Your task to perform on an android device: Play the last video I watched on Youtube Image 0: 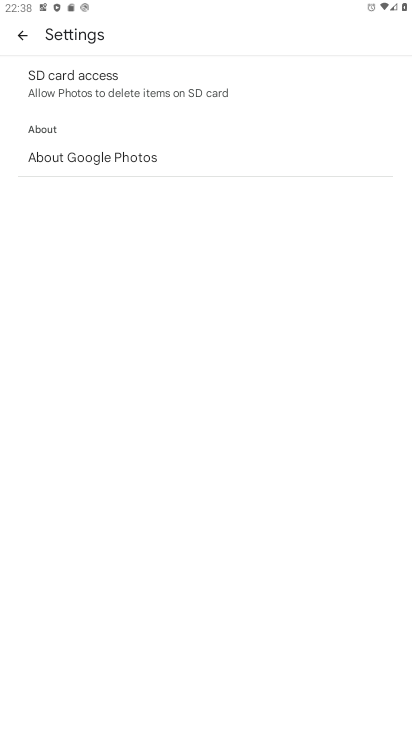
Step 0: drag from (230, 556) to (248, 422)
Your task to perform on an android device: Play the last video I watched on Youtube Image 1: 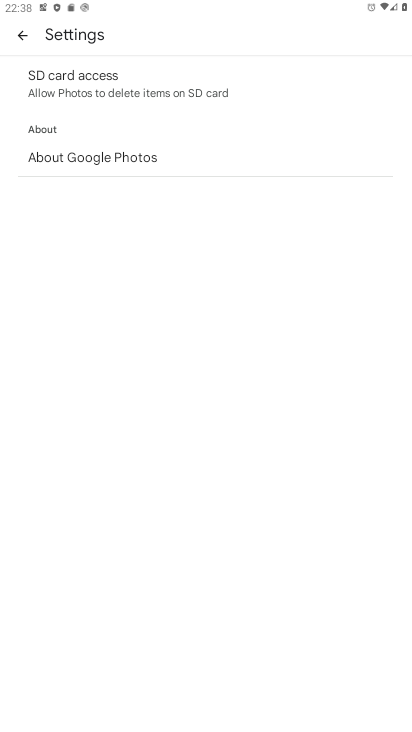
Step 1: press home button
Your task to perform on an android device: Play the last video I watched on Youtube Image 2: 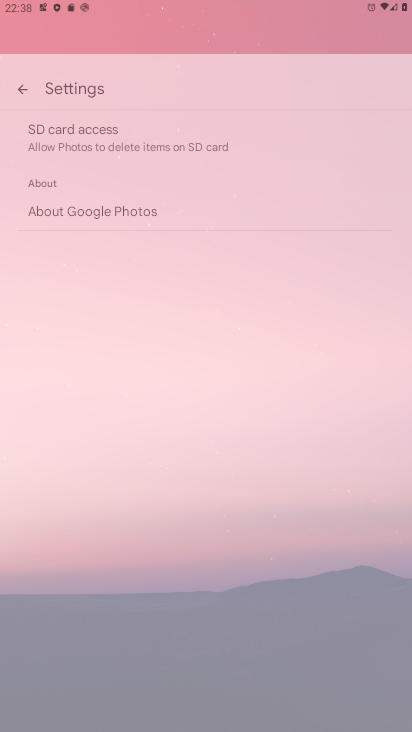
Step 2: drag from (178, 537) to (199, 247)
Your task to perform on an android device: Play the last video I watched on Youtube Image 3: 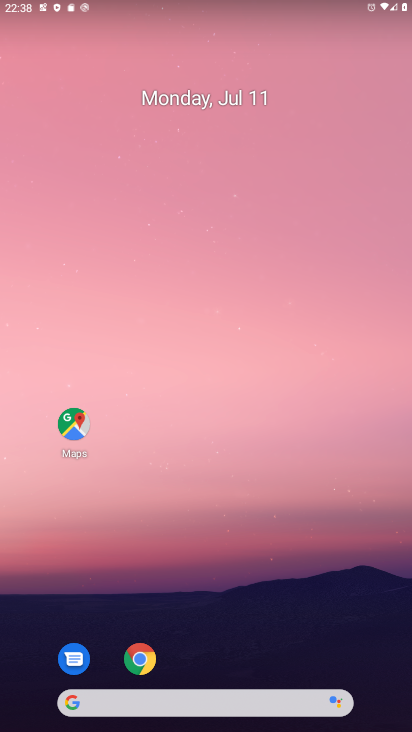
Step 3: drag from (210, 630) to (216, 0)
Your task to perform on an android device: Play the last video I watched on Youtube Image 4: 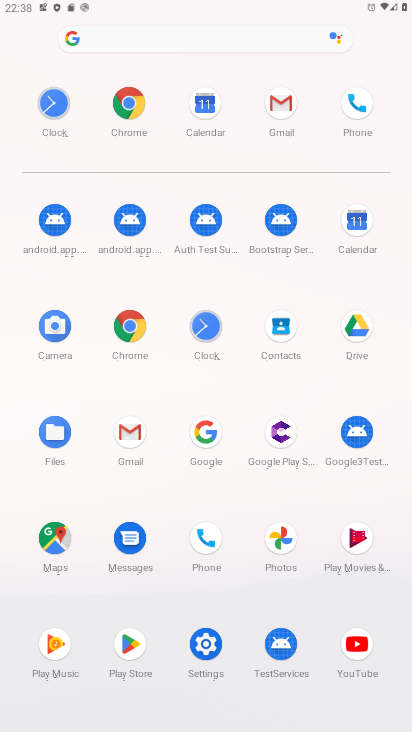
Step 4: click (352, 647)
Your task to perform on an android device: Play the last video I watched on Youtube Image 5: 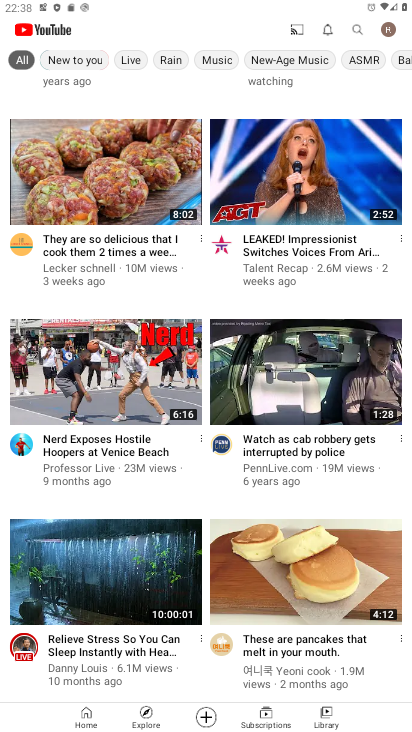
Step 5: drag from (196, 662) to (216, 124)
Your task to perform on an android device: Play the last video I watched on Youtube Image 6: 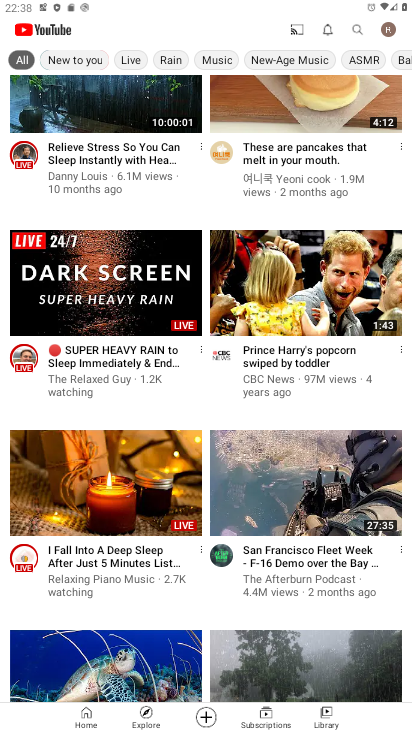
Step 6: drag from (209, 148) to (215, 729)
Your task to perform on an android device: Play the last video I watched on Youtube Image 7: 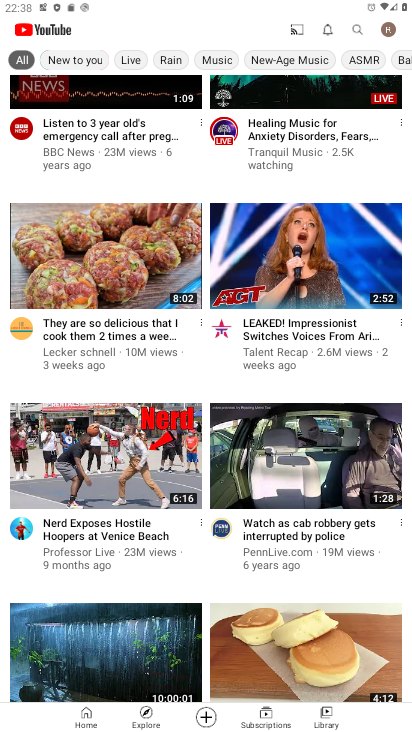
Step 7: drag from (212, 159) to (321, 685)
Your task to perform on an android device: Play the last video I watched on Youtube Image 8: 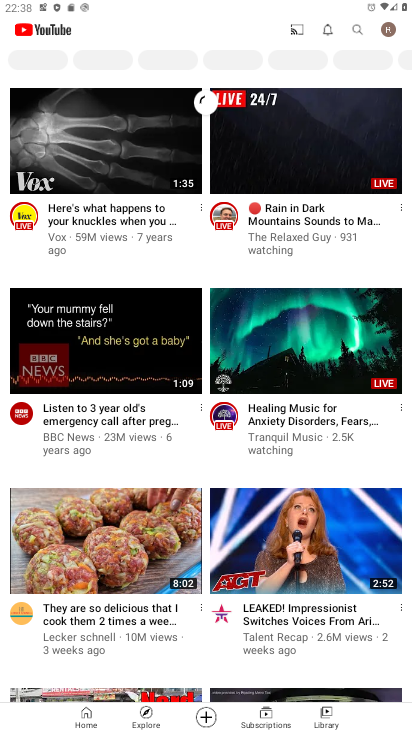
Step 8: click (323, 715)
Your task to perform on an android device: Play the last video I watched on Youtube Image 9: 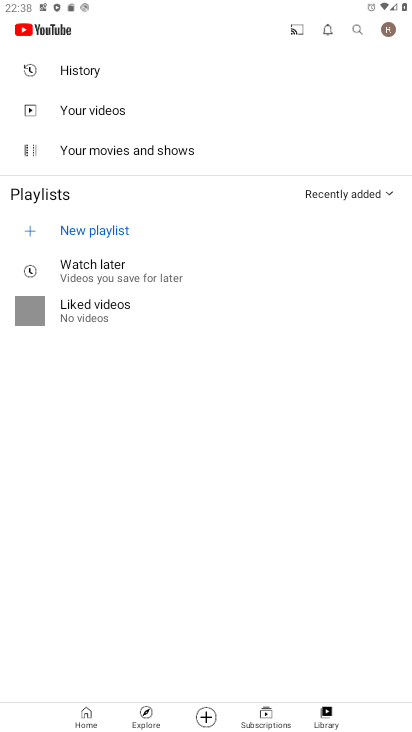
Step 9: drag from (49, 663) to (211, 282)
Your task to perform on an android device: Play the last video I watched on Youtube Image 10: 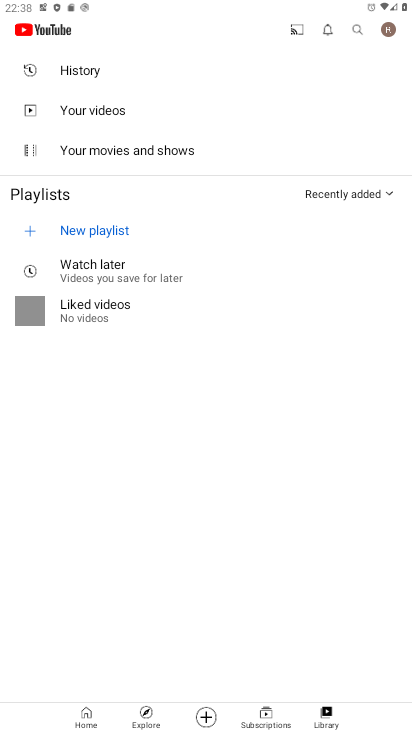
Step 10: drag from (150, 531) to (244, 39)
Your task to perform on an android device: Play the last video I watched on Youtube Image 11: 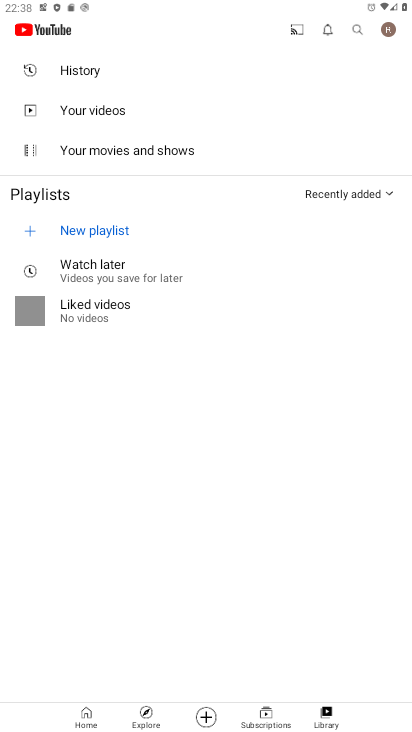
Step 11: drag from (234, 483) to (234, 297)
Your task to perform on an android device: Play the last video I watched on Youtube Image 12: 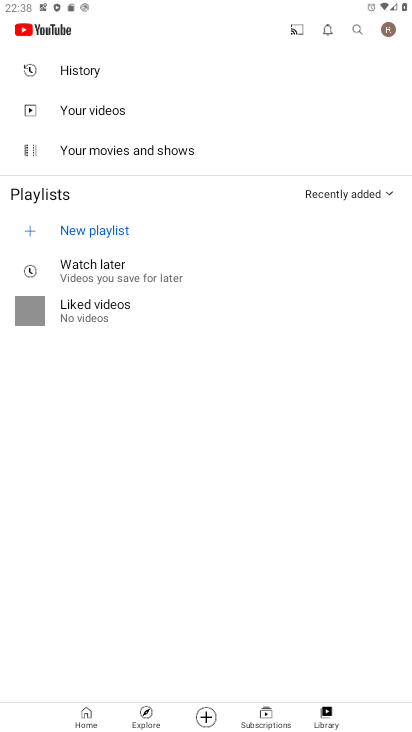
Step 12: click (86, 79)
Your task to perform on an android device: Play the last video I watched on Youtube Image 13: 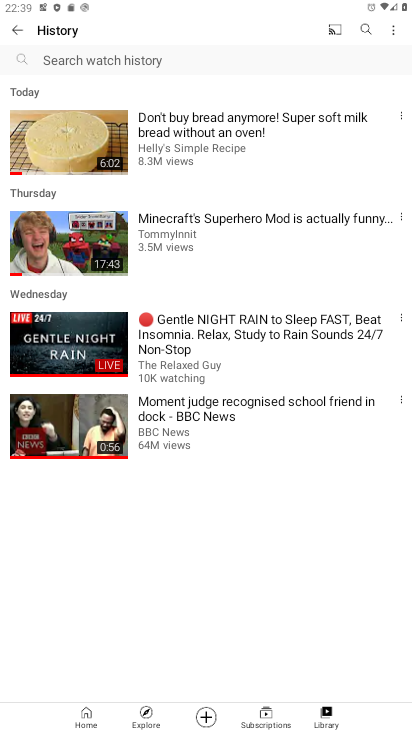
Step 13: drag from (244, 611) to (273, 259)
Your task to perform on an android device: Play the last video I watched on Youtube Image 14: 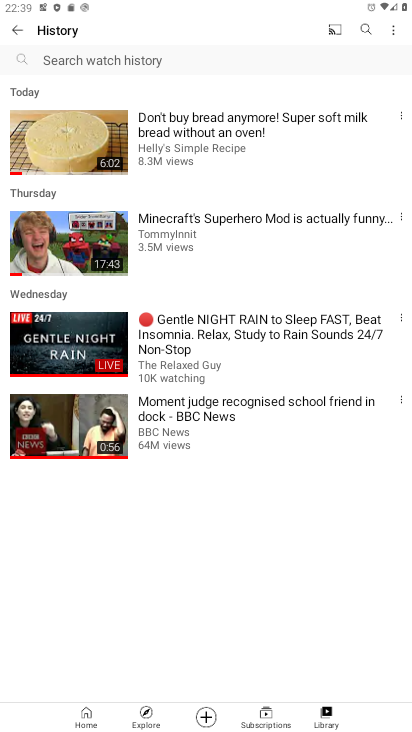
Step 14: click (151, 132)
Your task to perform on an android device: Play the last video I watched on Youtube Image 15: 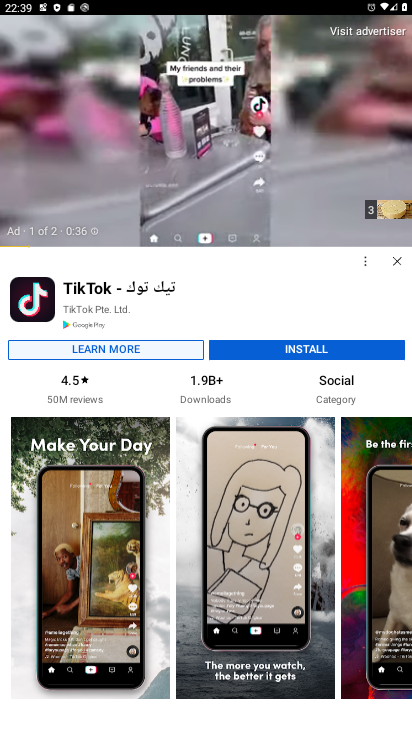
Step 15: drag from (229, 540) to (226, 261)
Your task to perform on an android device: Play the last video I watched on Youtube Image 16: 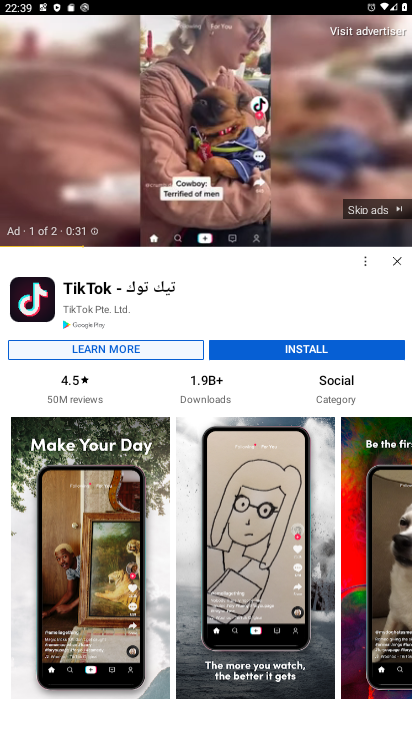
Step 16: drag from (226, 590) to (377, 194)
Your task to perform on an android device: Play the last video I watched on Youtube Image 17: 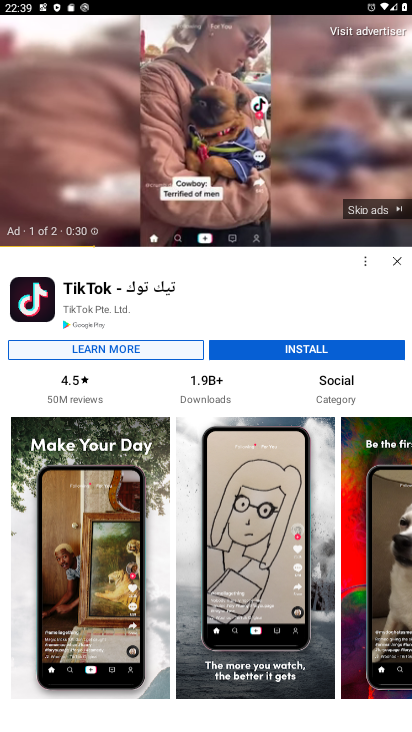
Step 17: click (362, 210)
Your task to perform on an android device: Play the last video I watched on Youtube Image 18: 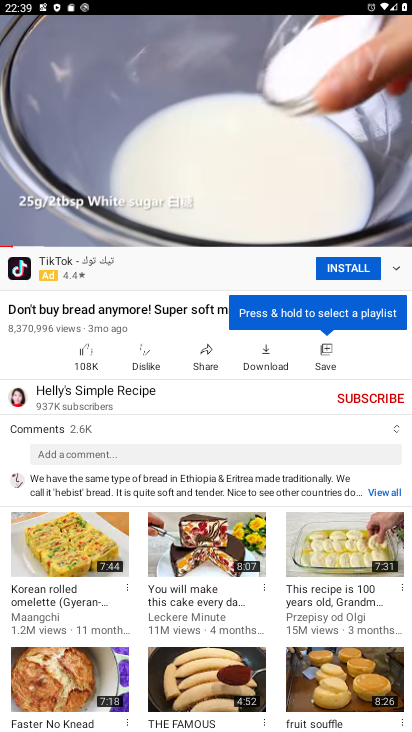
Step 18: drag from (247, 166) to (341, 725)
Your task to perform on an android device: Play the last video I watched on Youtube Image 19: 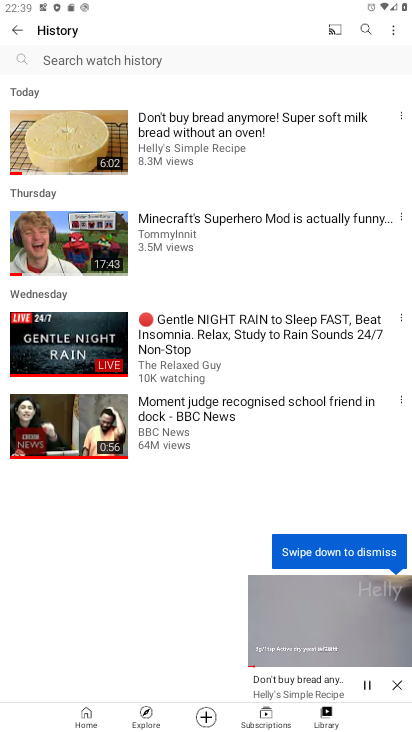
Step 19: drag from (372, 632) to (29, 597)
Your task to perform on an android device: Play the last video I watched on Youtube Image 20: 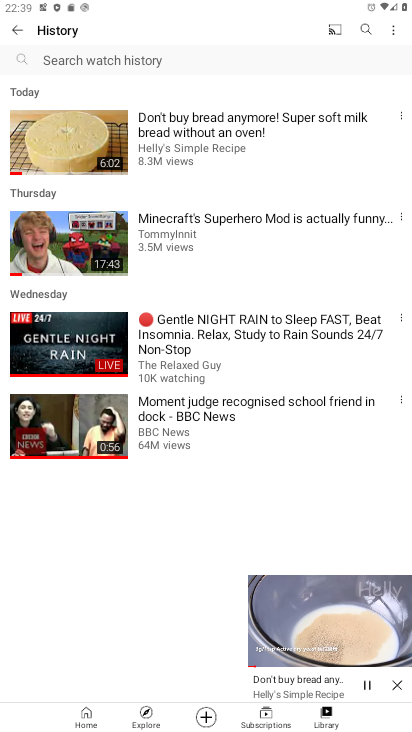
Step 20: click (390, 684)
Your task to perform on an android device: Play the last video I watched on Youtube Image 21: 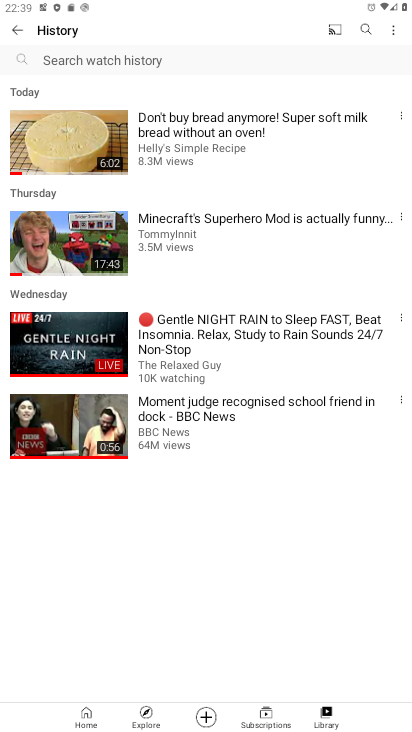
Step 21: task complete